Your task to perform on an android device: install app "AliExpress" Image 0: 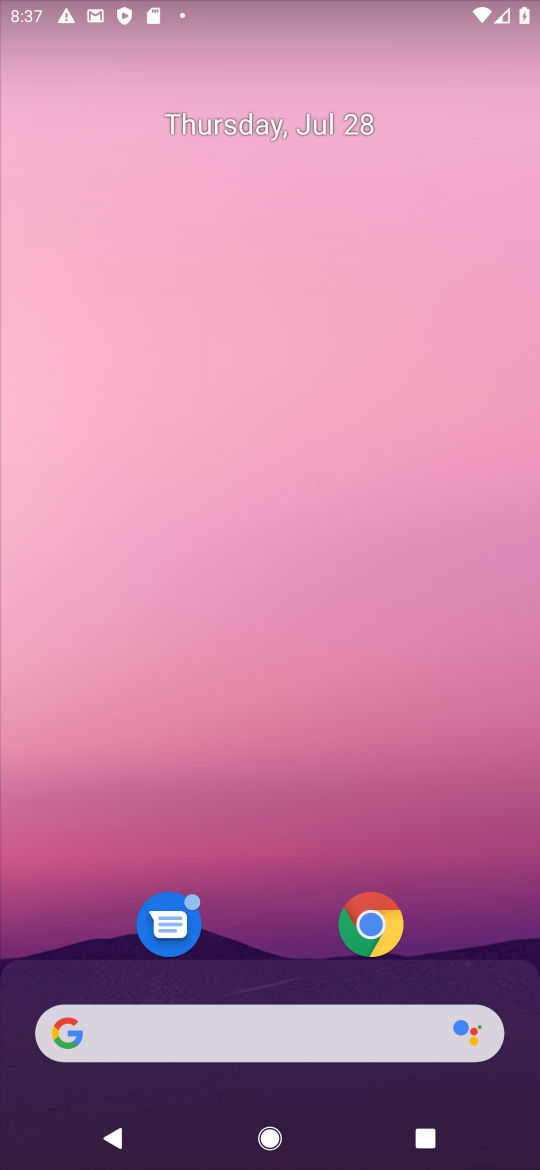
Step 0: drag from (345, 761) to (385, 12)
Your task to perform on an android device: install app "AliExpress" Image 1: 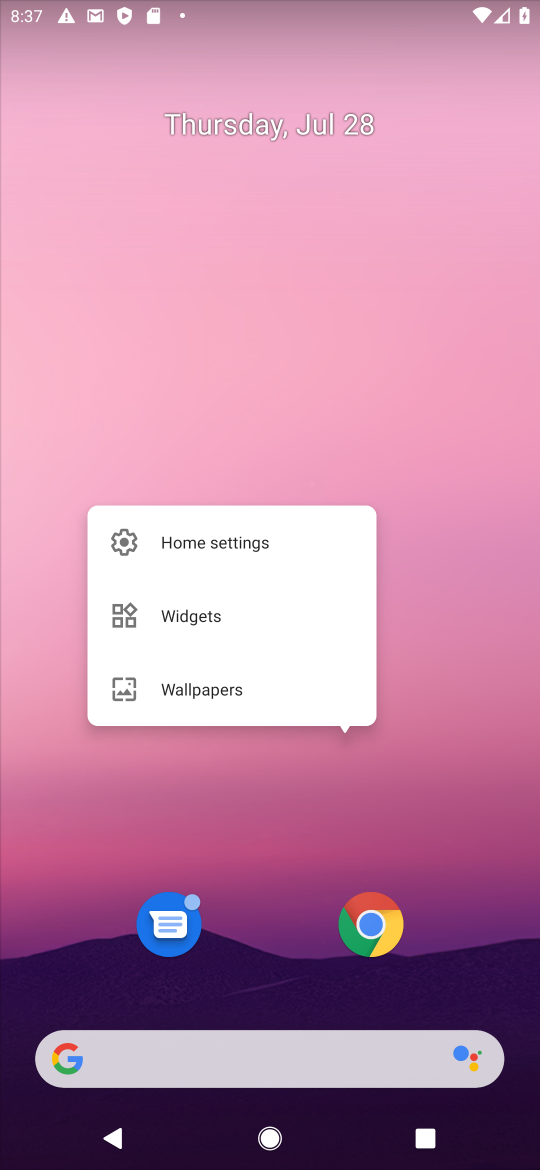
Step 1: drag from (295, 1047) to (485, 145)
Your task to perform on an android device: install app "AliExpress" Image 2: 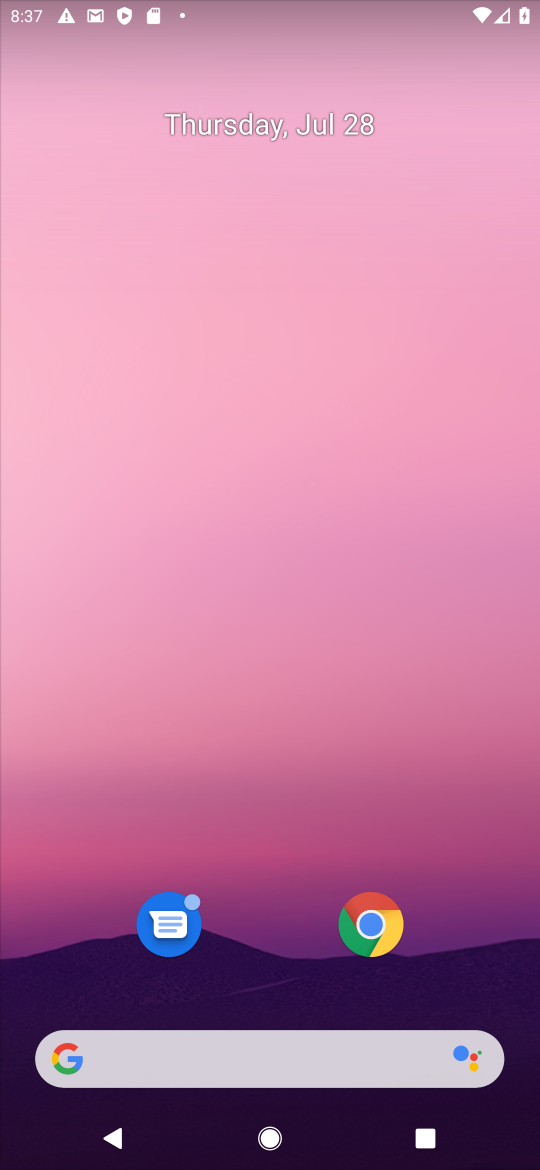
Step 2: drag from (225, 1054) to (427, 16)
Your task to perform on an android device: install app "AliExpress" Image 3: 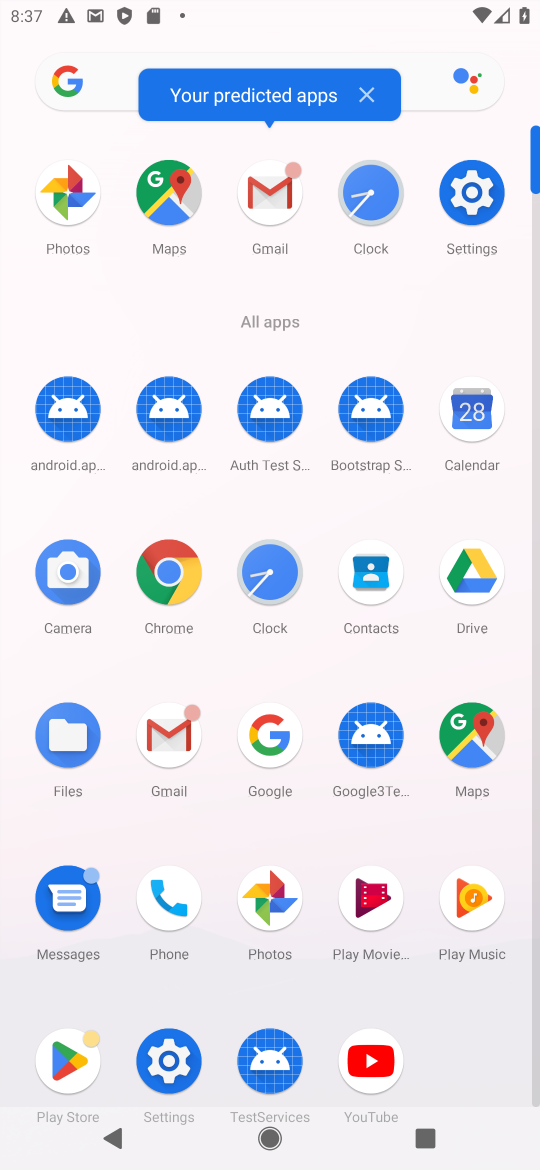
Step 3: click (67, 1061)
Your task to perform on an android device: install app "AliExpress" Image 4: 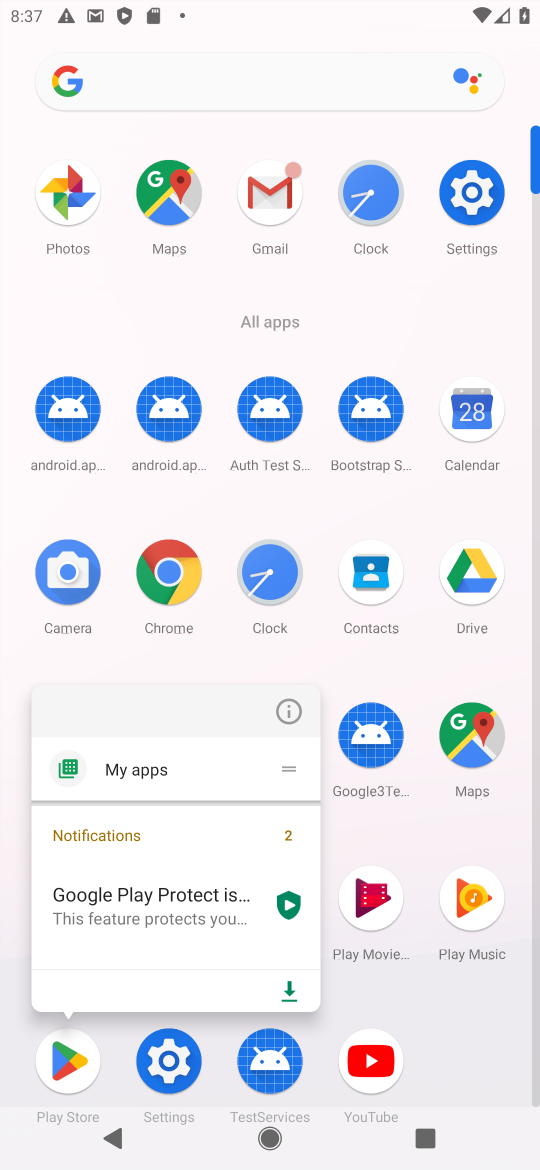
Step 4: click (67, 1060)
Your task to perform on an android device: install app "AliExpress" Image 5: 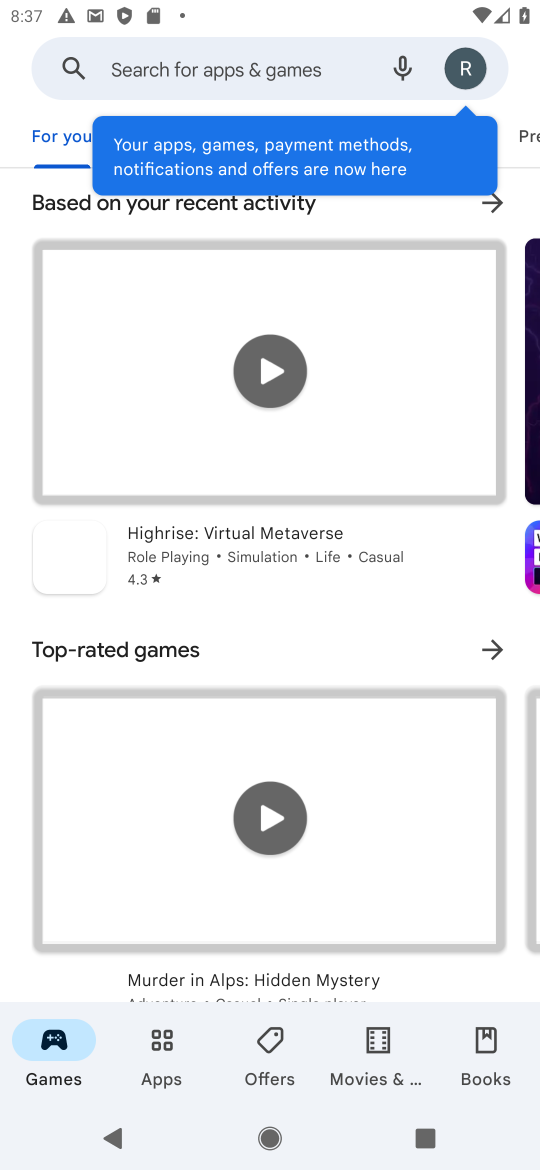
Step 5: click (192, 56)
Your task to perform on an android device: install app "AliExpress" Image 6: 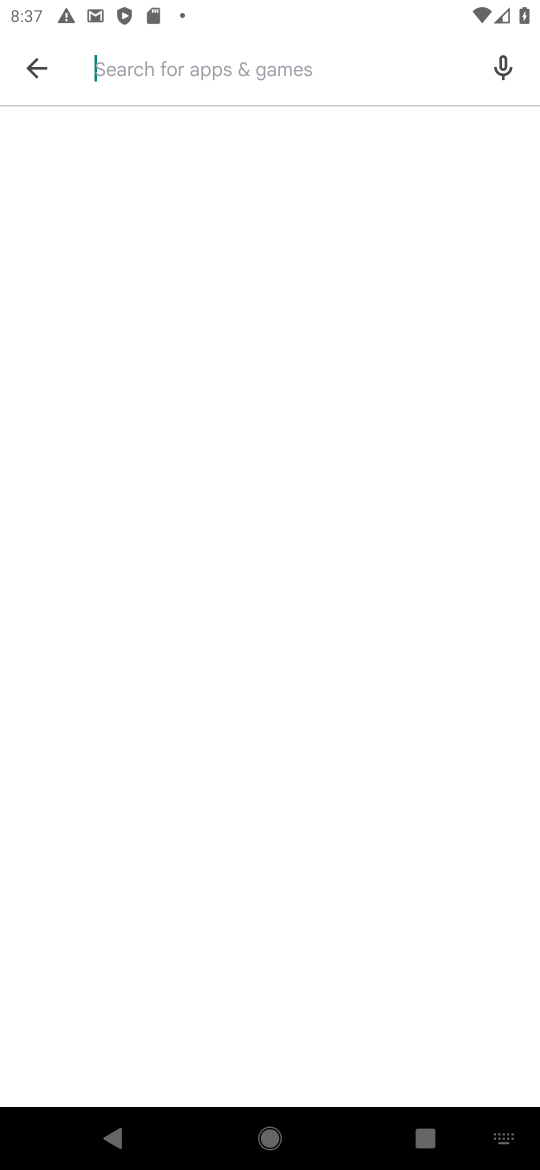
Step 6: type "AliExpress"
Your task to perform on an android device: install app "AliExpress" Image 7: 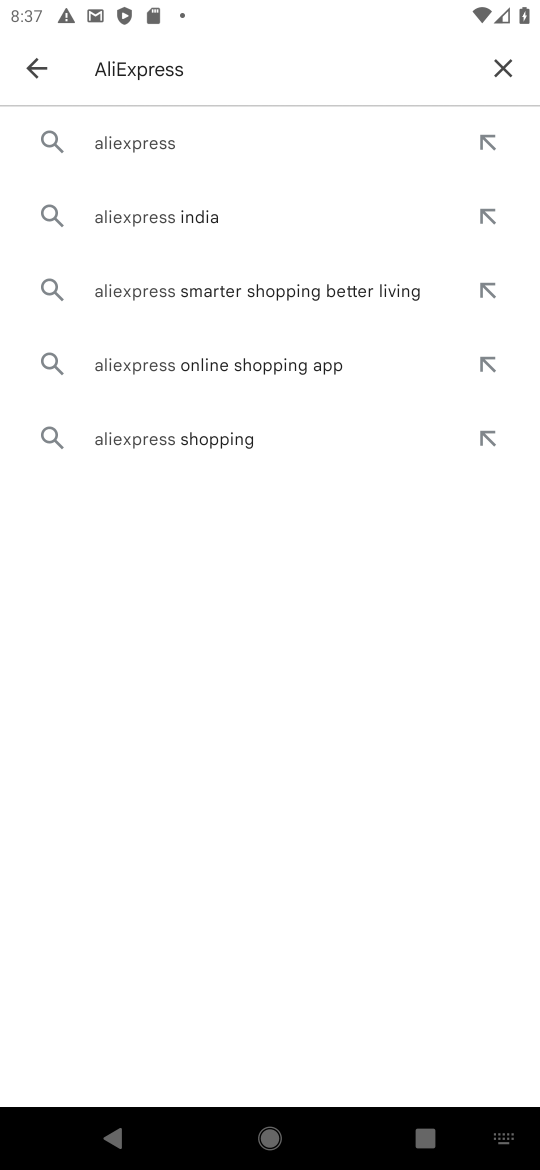
Step 7: click (158, 149)
Your task to perform on an android device: install app "AliExpress" Image 8: 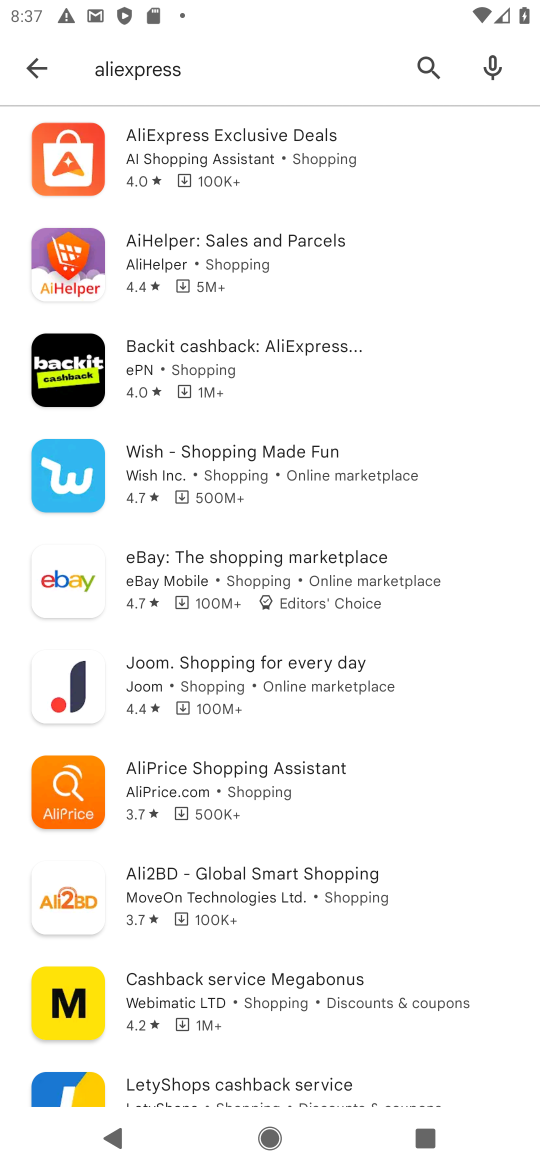
Step 8: click (208, 158)
Your task to perform on an android device: install app "AliExpress" Image 9: 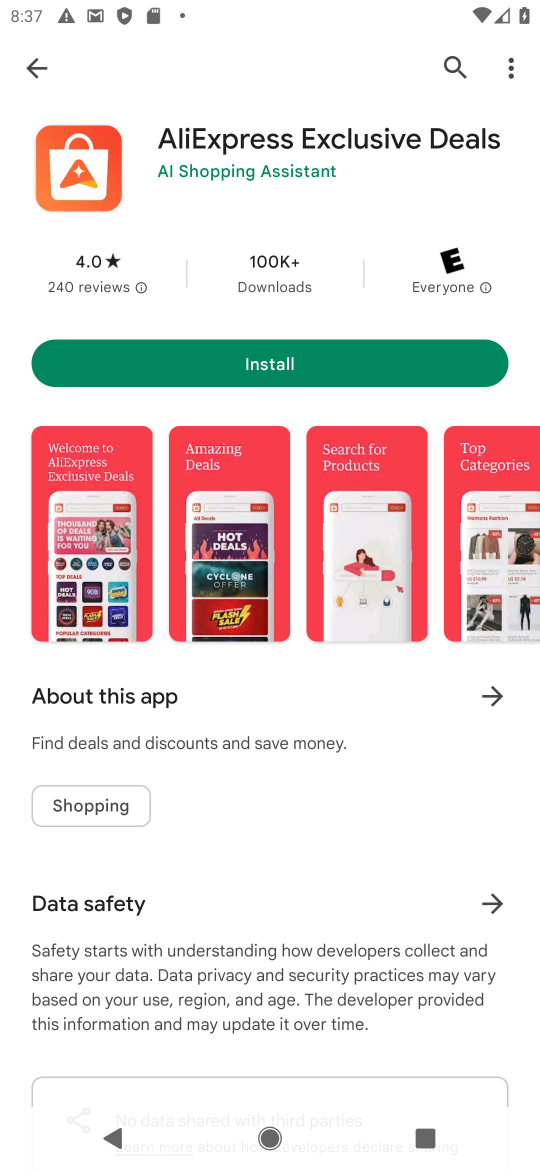
Step 9: click (295, 366)
Your task to perform on an android device: install app "AliExpress" Image 10: 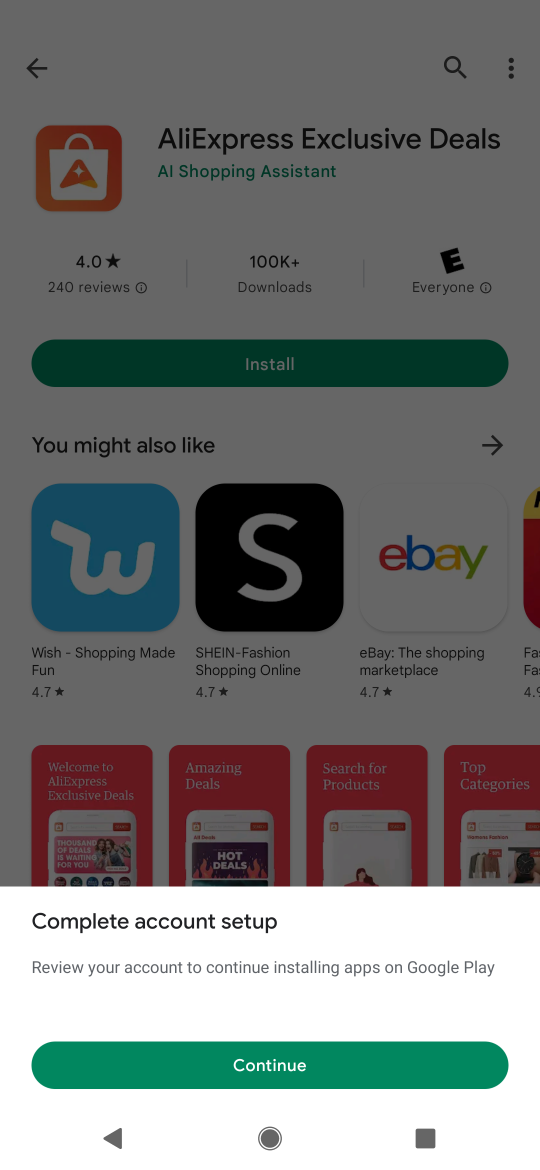
Step 10: click (317, 1059)
Your task to perform on an android device: install app "AliExpress" Image 11: 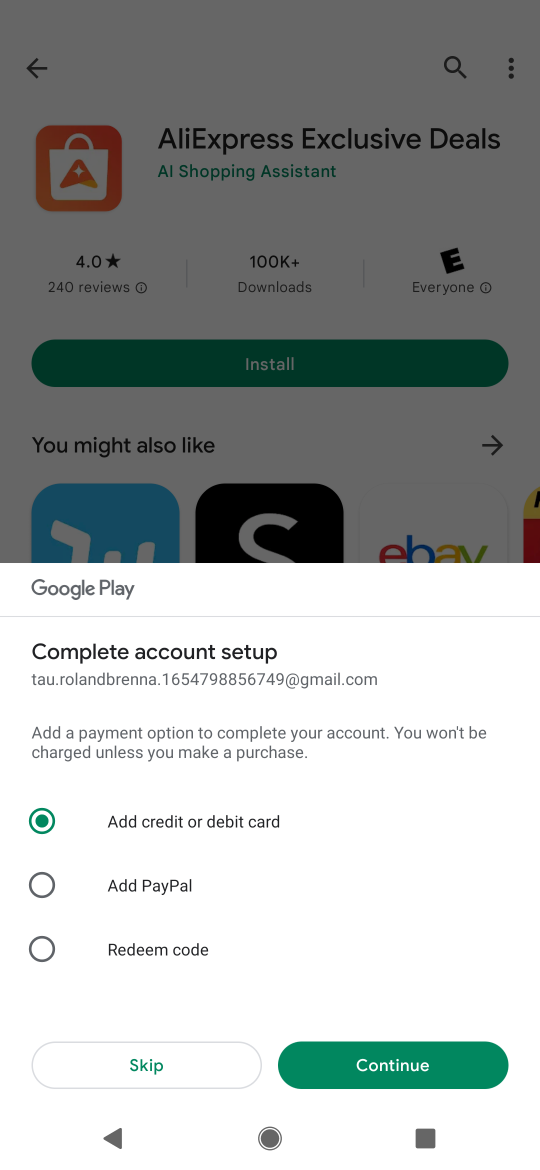
Step 11: click (159, 1071)
Your task to perform on an android device: install app "AliExpress" Image 12: 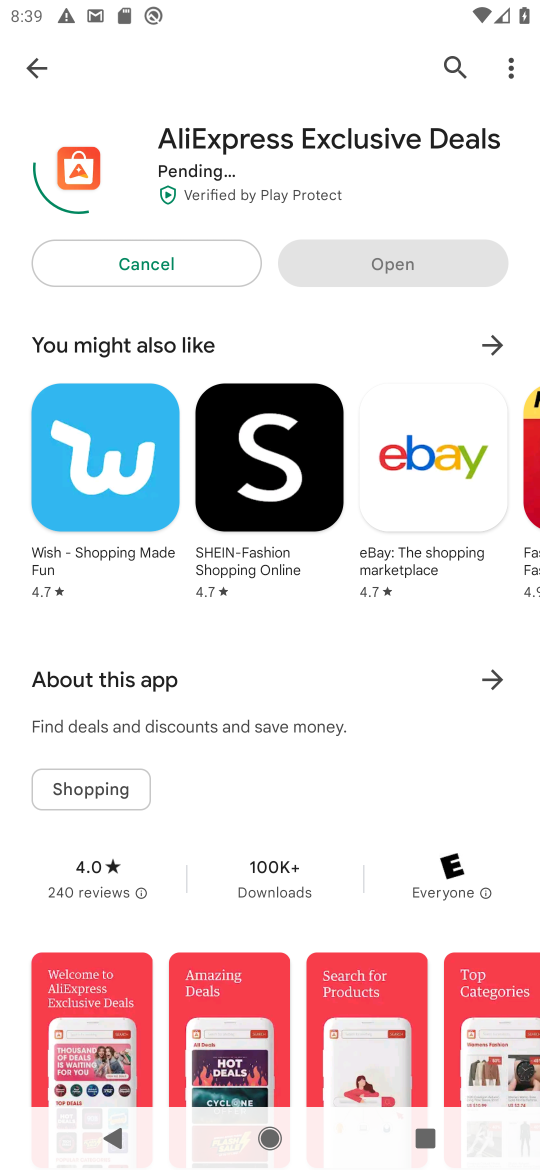
Step 12: task complete